Your task to perform on an android device: Is it going to rain this weekend? Image 0: 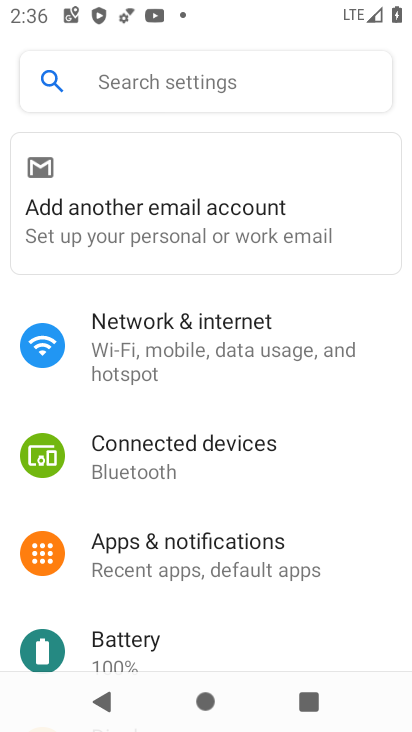
Step 0: press home button
Your task to perform on an android device: Is it going to rain this weekend? Image 1: 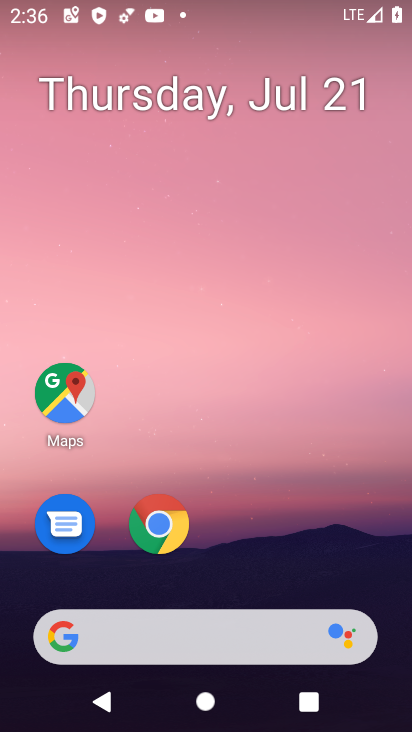
Step 1: click (238, 635)
Your task to perform on an android device: Is it going to rain this weekend? Image 2: 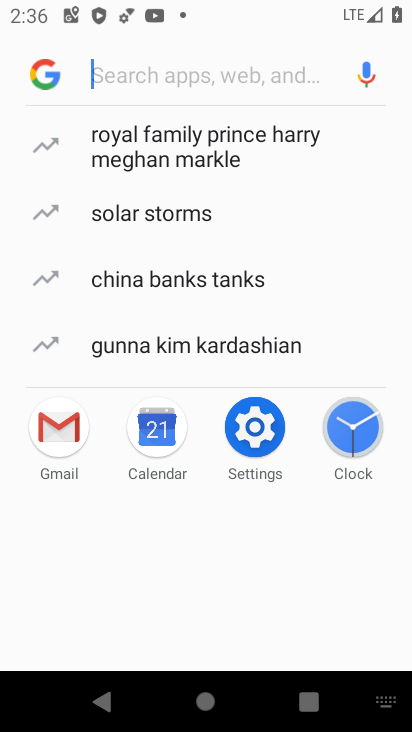
Step 2: click (52, 70)
Your task to perform on an android device: Is it going to rain this weekend? Image 3: 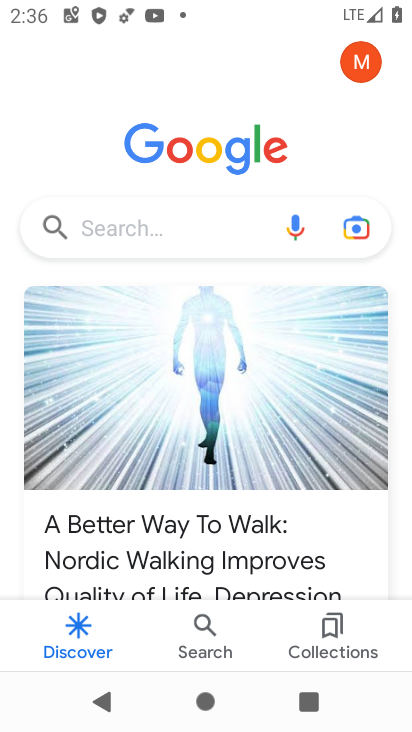
Step 3: click (212, 148)
Your task to perform on an android device: Is it going to rain this weekend? Image 4: 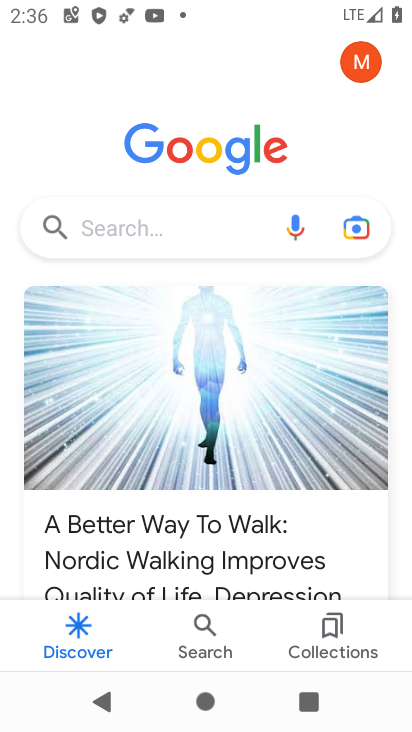
Step 4: click (212, 148)
Your task to perform on an android device: Is it going to rain this weekend? Image 5: 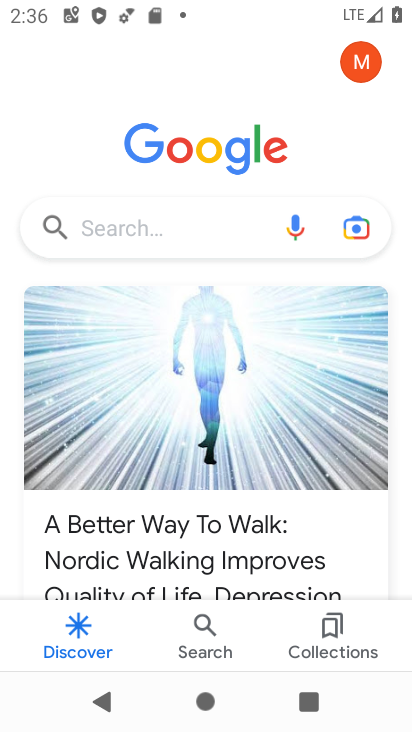
Step 5: click (180, 143)
Your task to perform on an android device: Is it going to rain this weekend? Image 6: 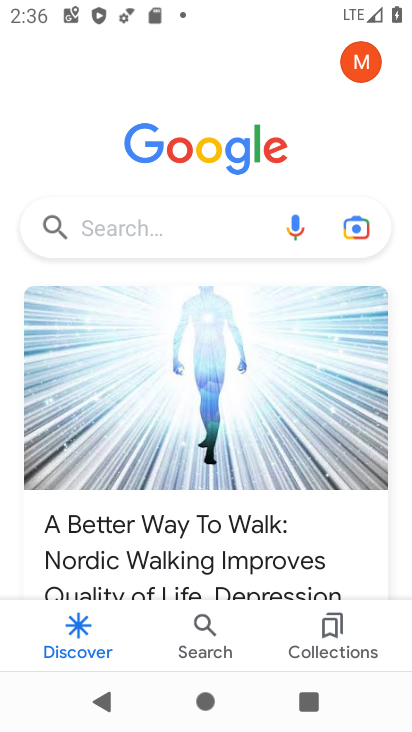
Step 6: click (133, 225)
Your task to perform on an android device: Is it going to rain this weekend? Image 7: 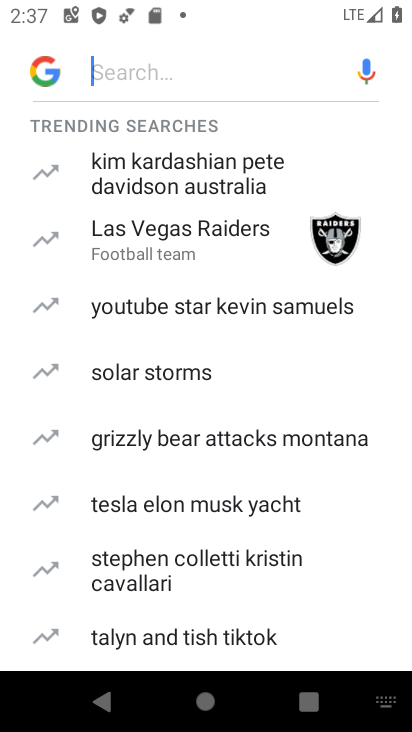
Step 7: type "weather"
Your task to perform on an android device: Is it going to rain this weekend? Image 8: 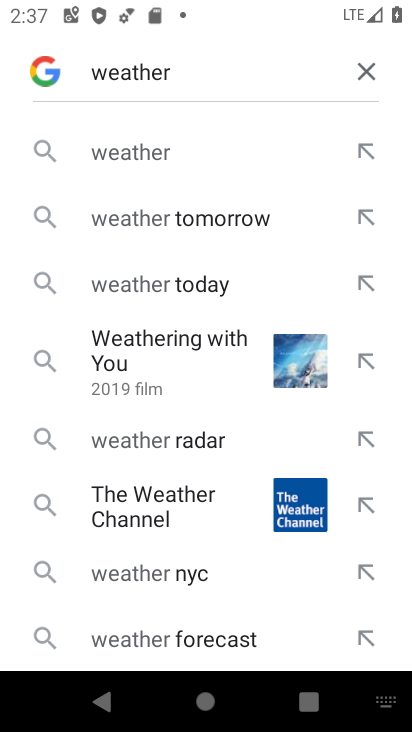
Step 8: click (132, 146)
Your task to perform on an android device: Is it going to rain this weekend? Image 9: 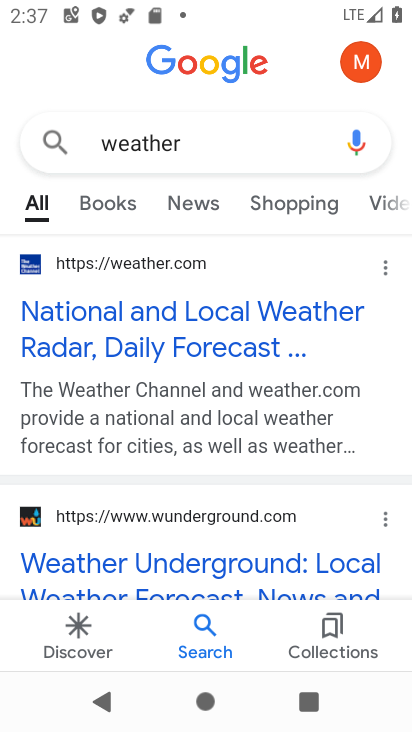
Step 9: click (197, 53)
Your task to perform on an android device: Is it going to rain this weekend? Image 10: 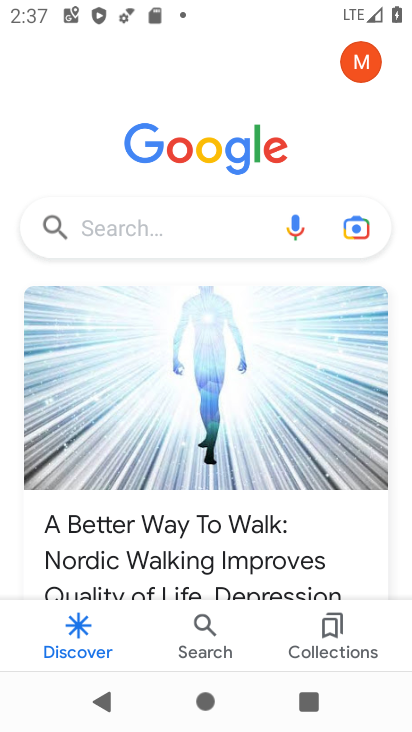
Step 10: click (214, 145)
Your task to perform on an android device: Is it going to rain this weekend? Image 11: 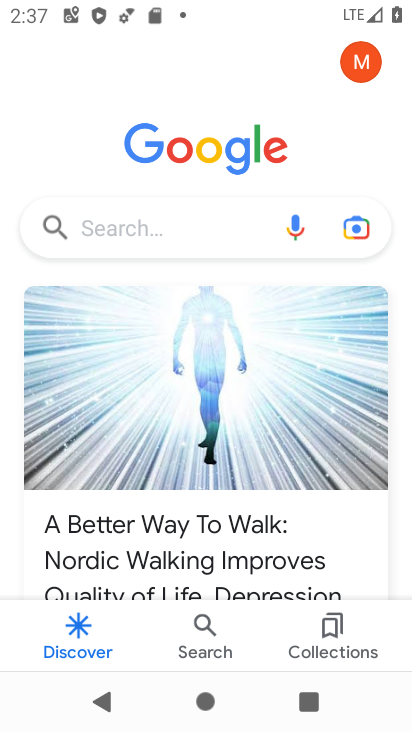
Step 11: drag from (201, 378) to (218, 96)
Your task to perform on an android device: Is it going to rain this weekend? Image 12: 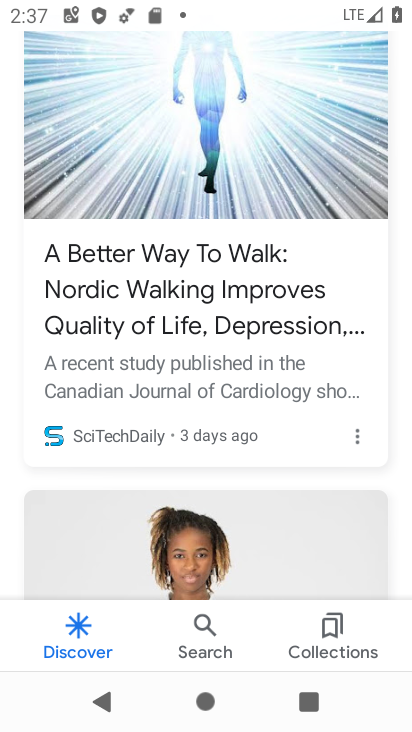
Step 12: drag from (220, 271) to (222, 513)
Your task to perform on an android device: Is it going to rain this weekend? Image 13: 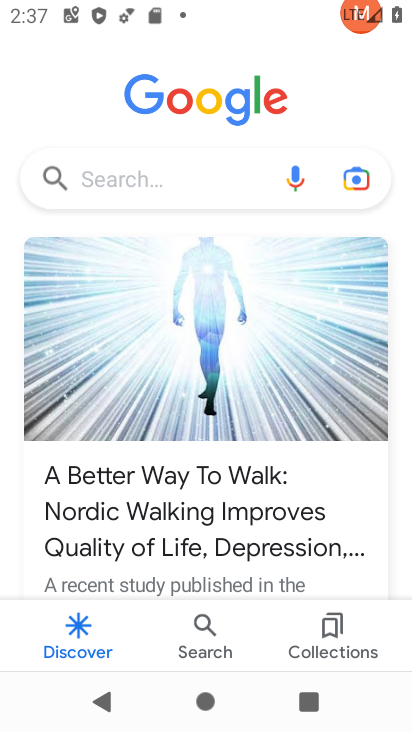
Step 13: drag from (244, 329) to (276, 562)
Your task to perform on an android device: Is it going to rain this weekend? Image 14: 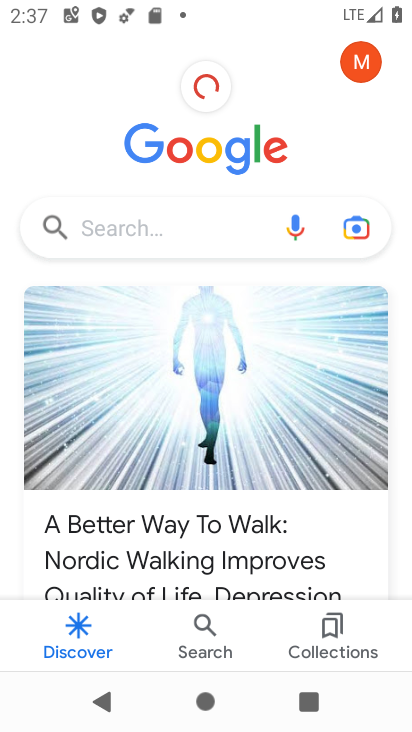
Step 14: click (198, 136)
Your task to perform on an android device: Is it going to rain this weekend? Image 15: 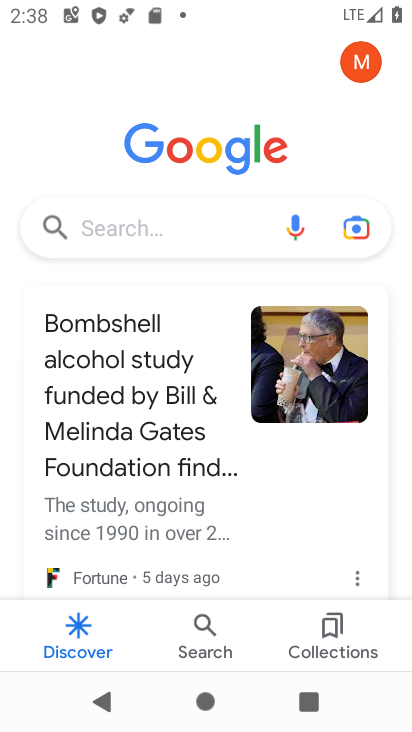
Step 15: click (155, 226)
Your task to perform on an android device: Is it going to rain this weekend? Image 16: 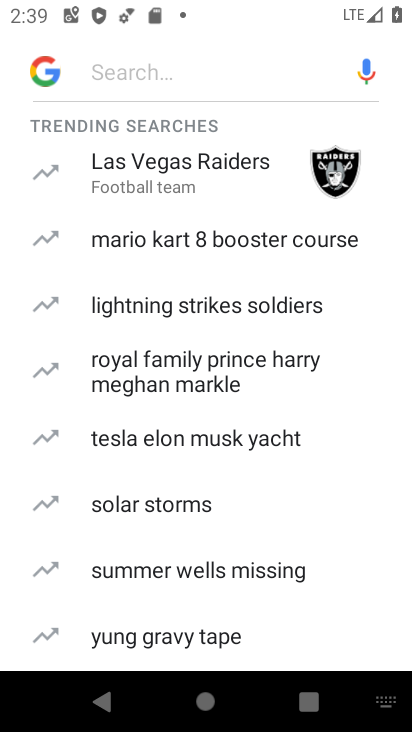
Step 16: click (171, 121)
Your task to perform on an android device: Is it going to rain this weekend? Image 17: 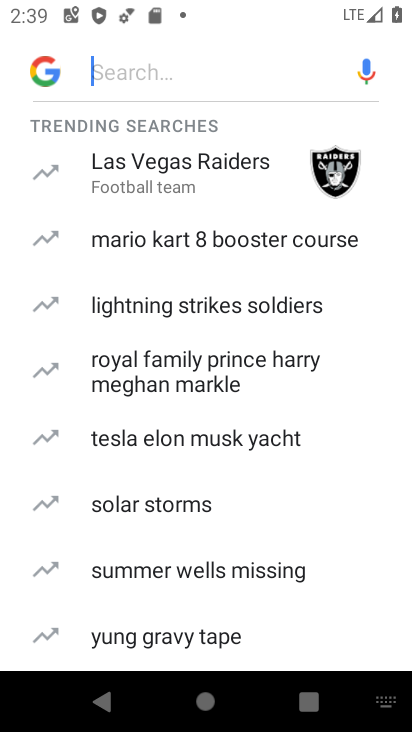
Step 17: type "is it going to rain this weekend?"
Your task to perform on an android device: Is it going to rain this weekend? Image 18: 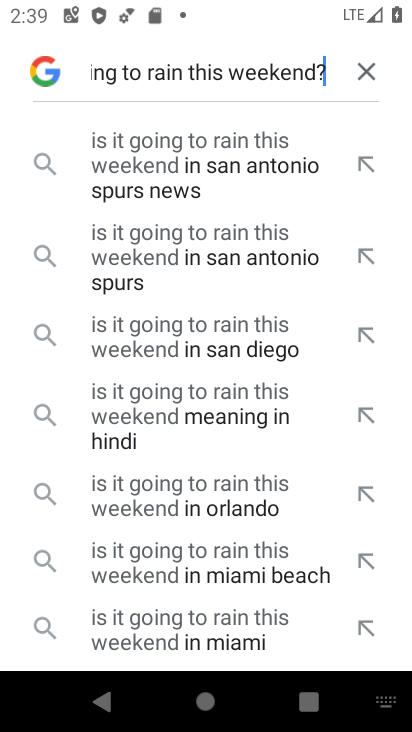
Step 18: click (271, 138)
Your task to perform on an android device: Is it going to rain this weekend? Image 19: 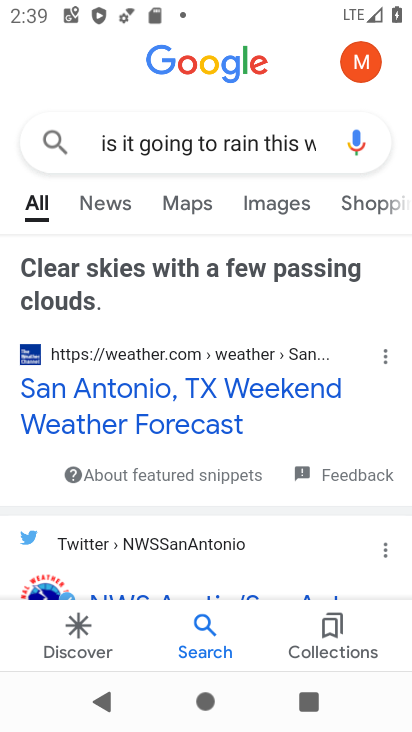
Step 19: task complete